Your task to perform on an android device: How much does a 2 bedroom apartment rent for in Miami? Image 0: 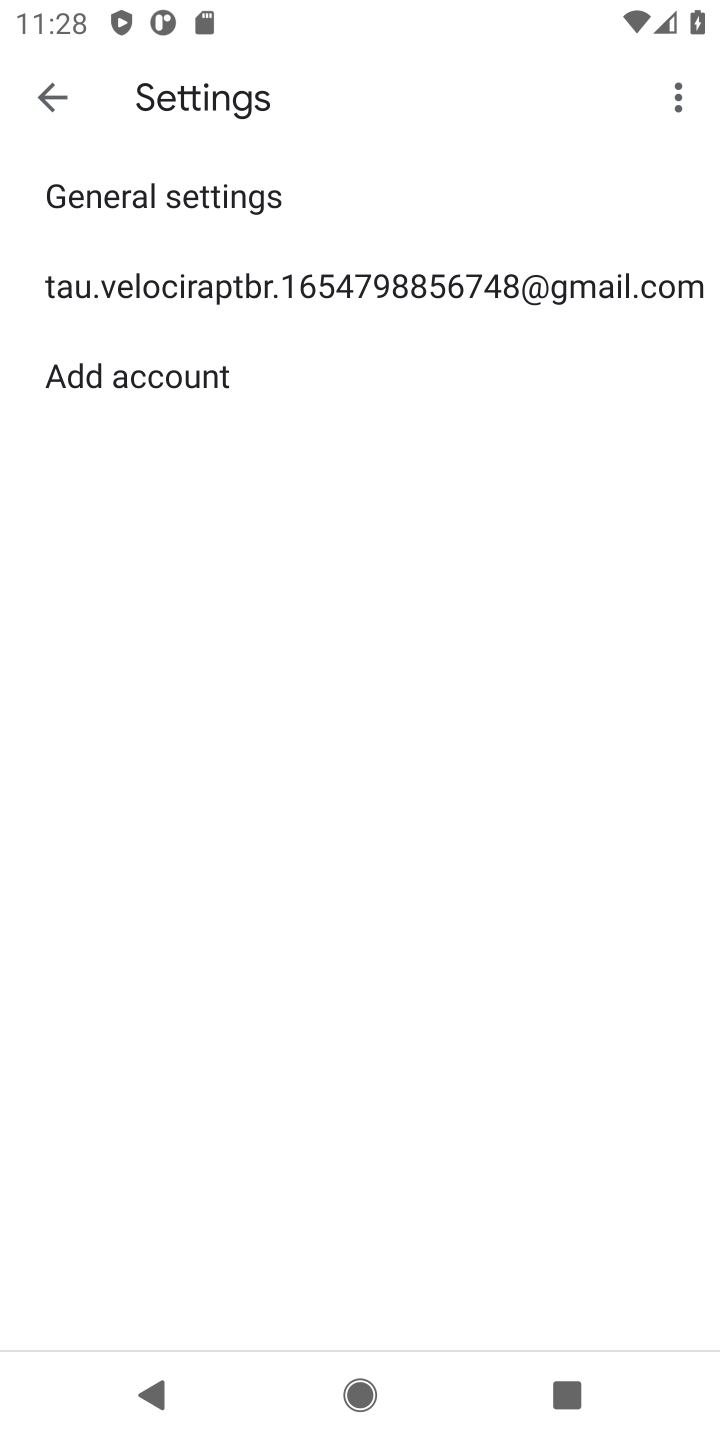
Step 0: press home button
Your task to perform on an android device: How much does a 2 bedroom apartment rent for in Miami? Image 1: 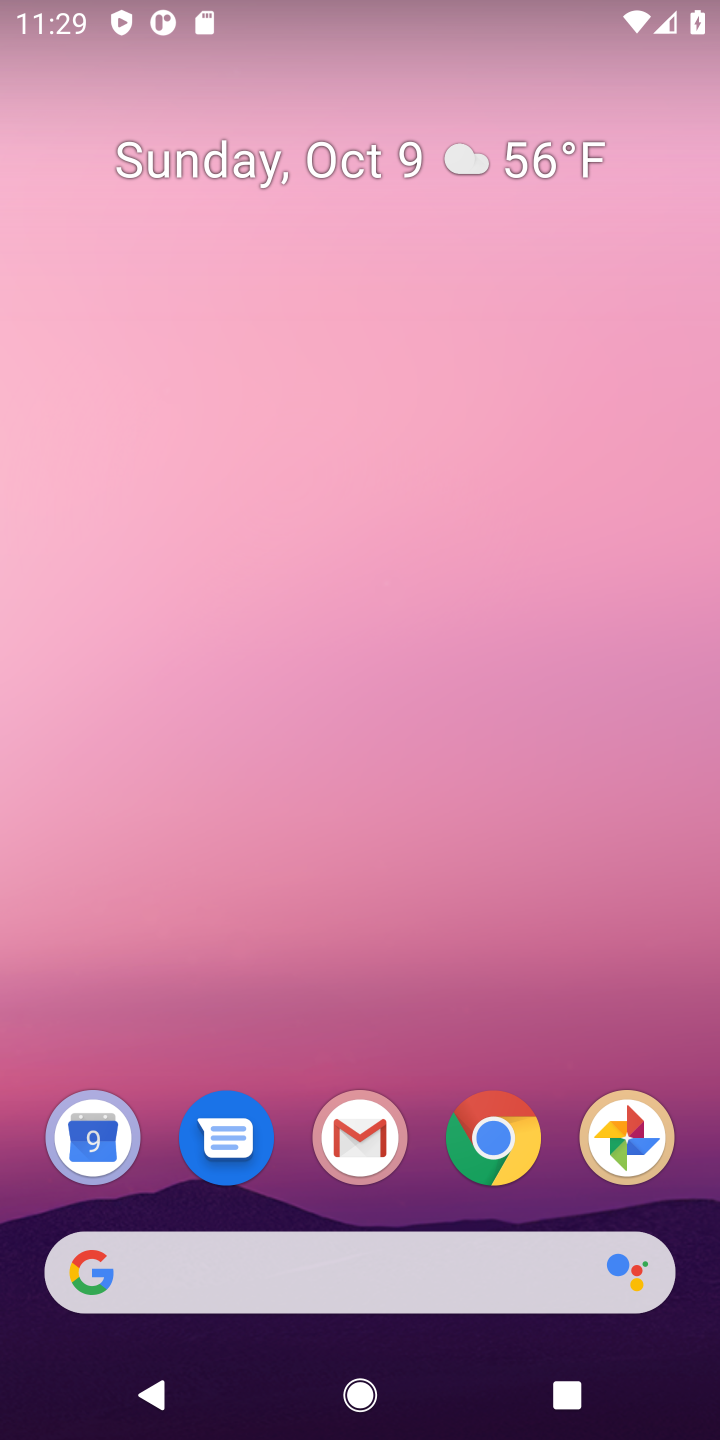
Step 1: click (500, 1156)
Your task to perform on an android device: How much does a 2 bedroom apartment rent for in Miami? Image 2: 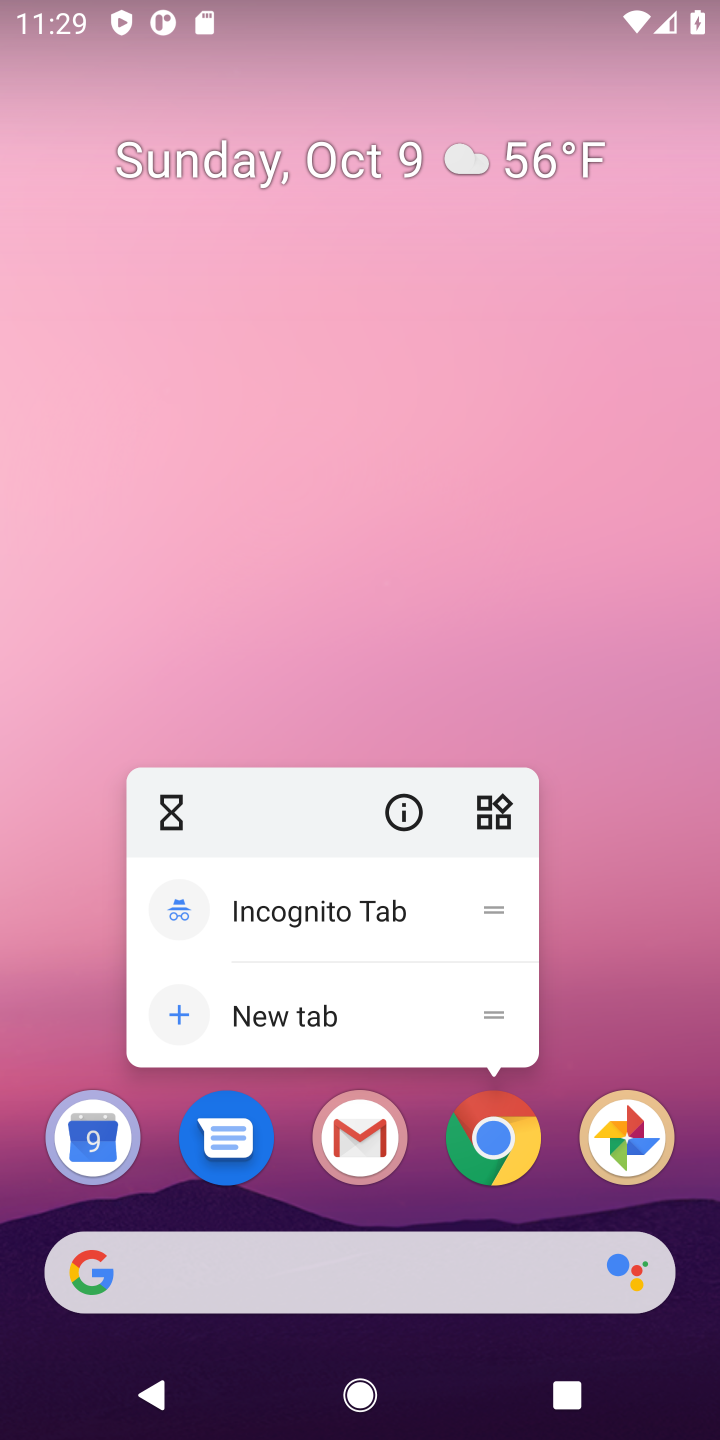
Step 2: click (412, 606)
Your task to perform on an android device: How much does a 2 bedroom apartment rent for in Miami? Image 3: 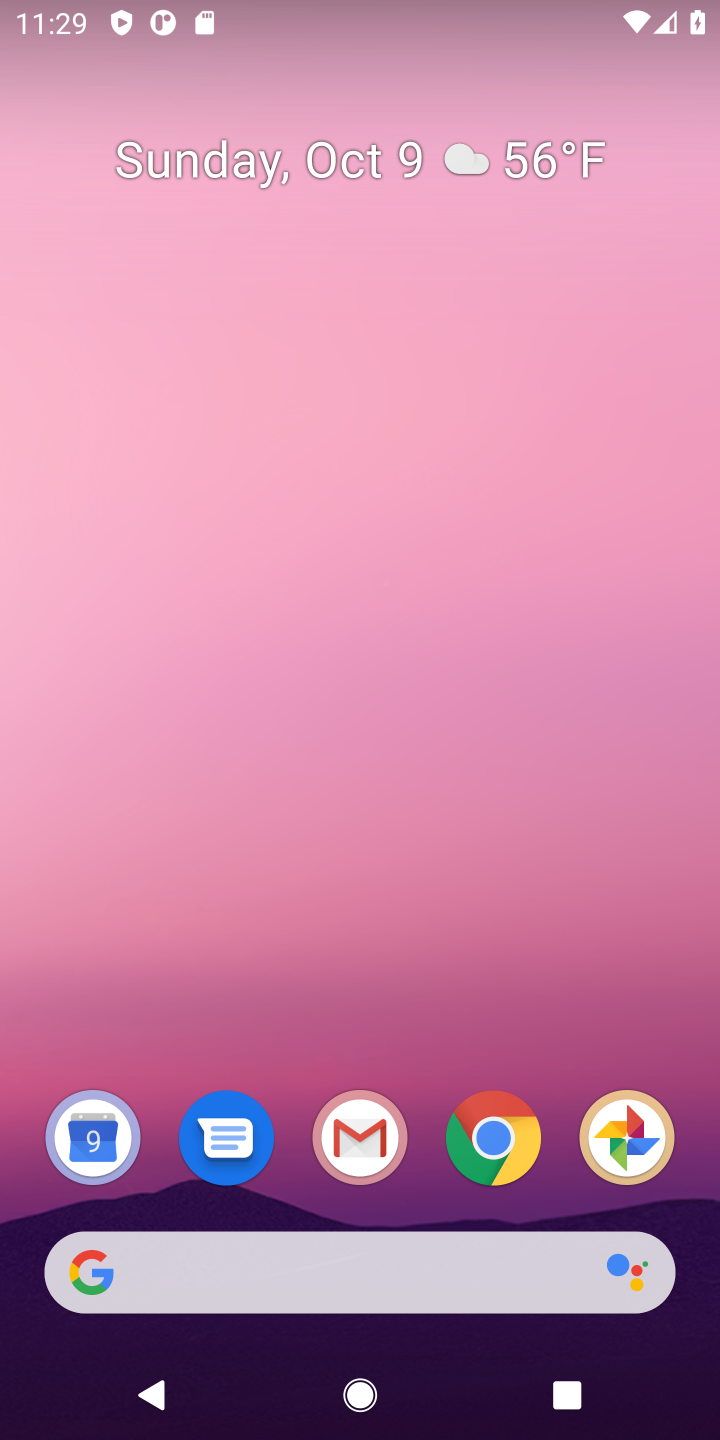
Step 3: click (499, 1123)
Your task to perform on an android device: How much does a 2 bedroom apartment rent for in Miami? Image 4: 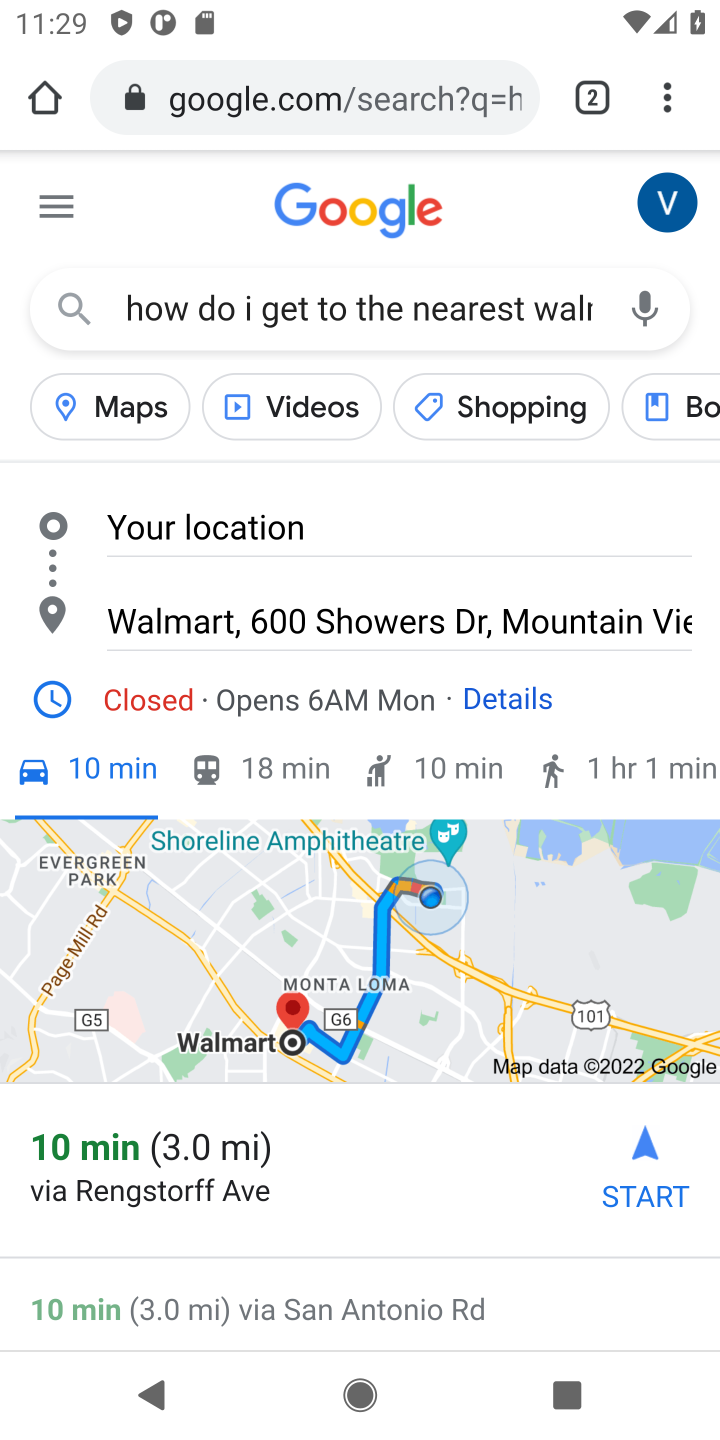
Step 4: click (213, 96)
Your task to perform on an android device: How much does a 2 bedroom apartment rent for in Miami? Image 5: 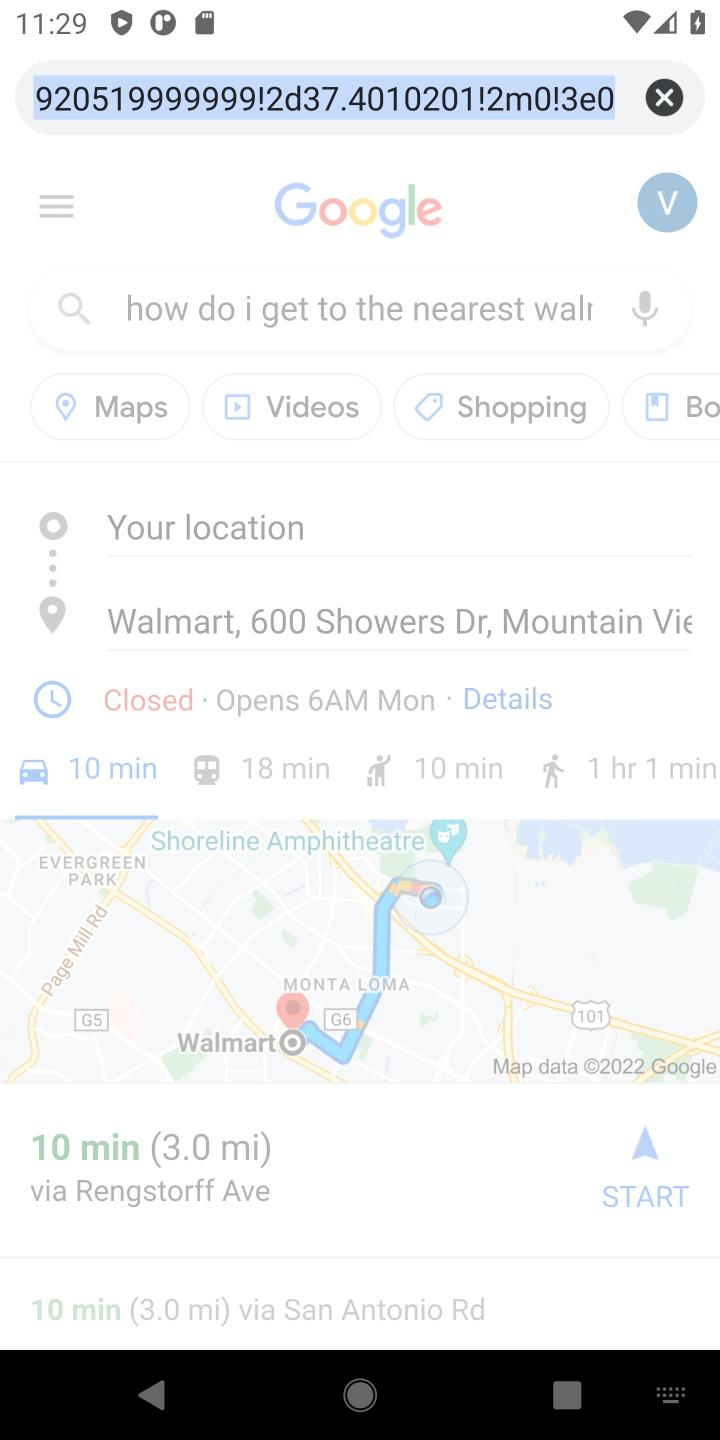
Step 5: click (658, 90)
Your task to perform on an android device: How much does a 2 bedroom apartment rent for in Miami? Image 6: 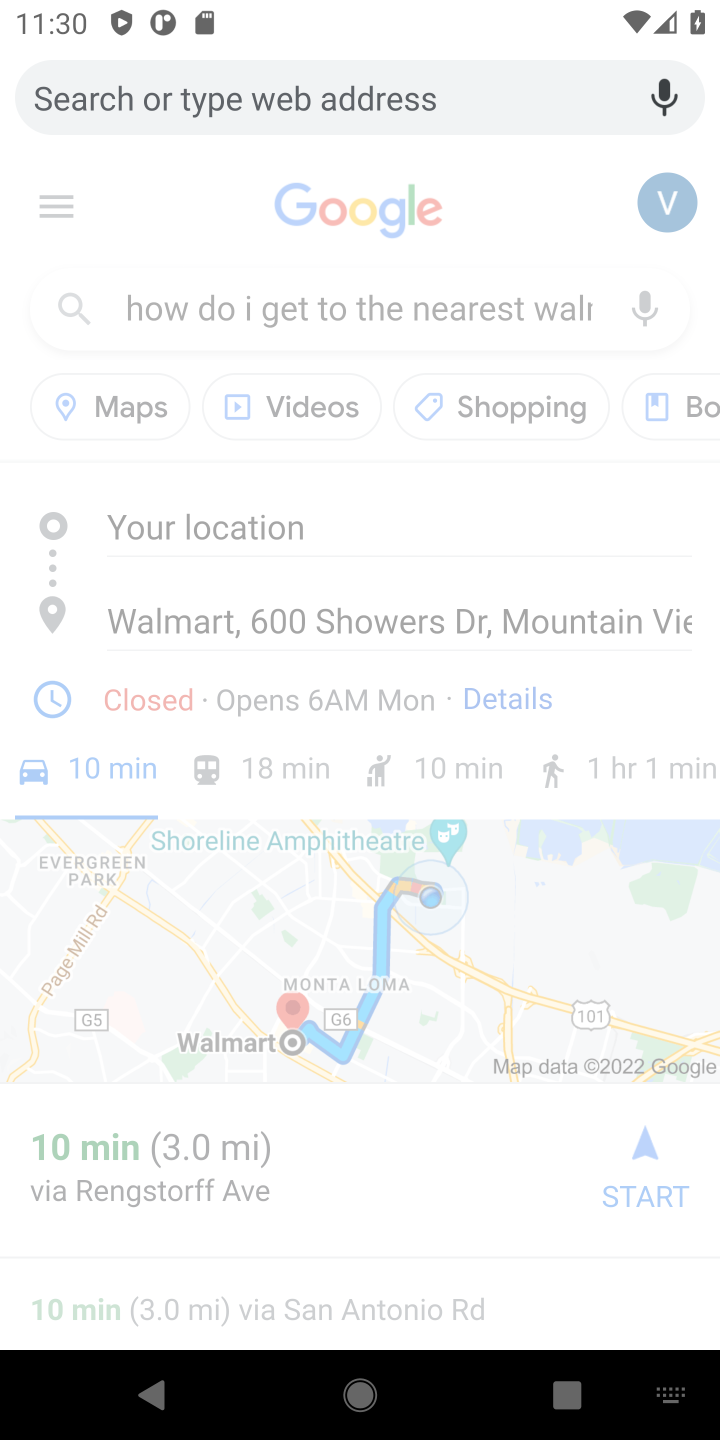
Step 6: type "How much does a 2 bedroom apartment rent for in Miami?"
Your task to perform on an android device: How much does a 2 bedroom apartment rent for in Miami? Image 7: 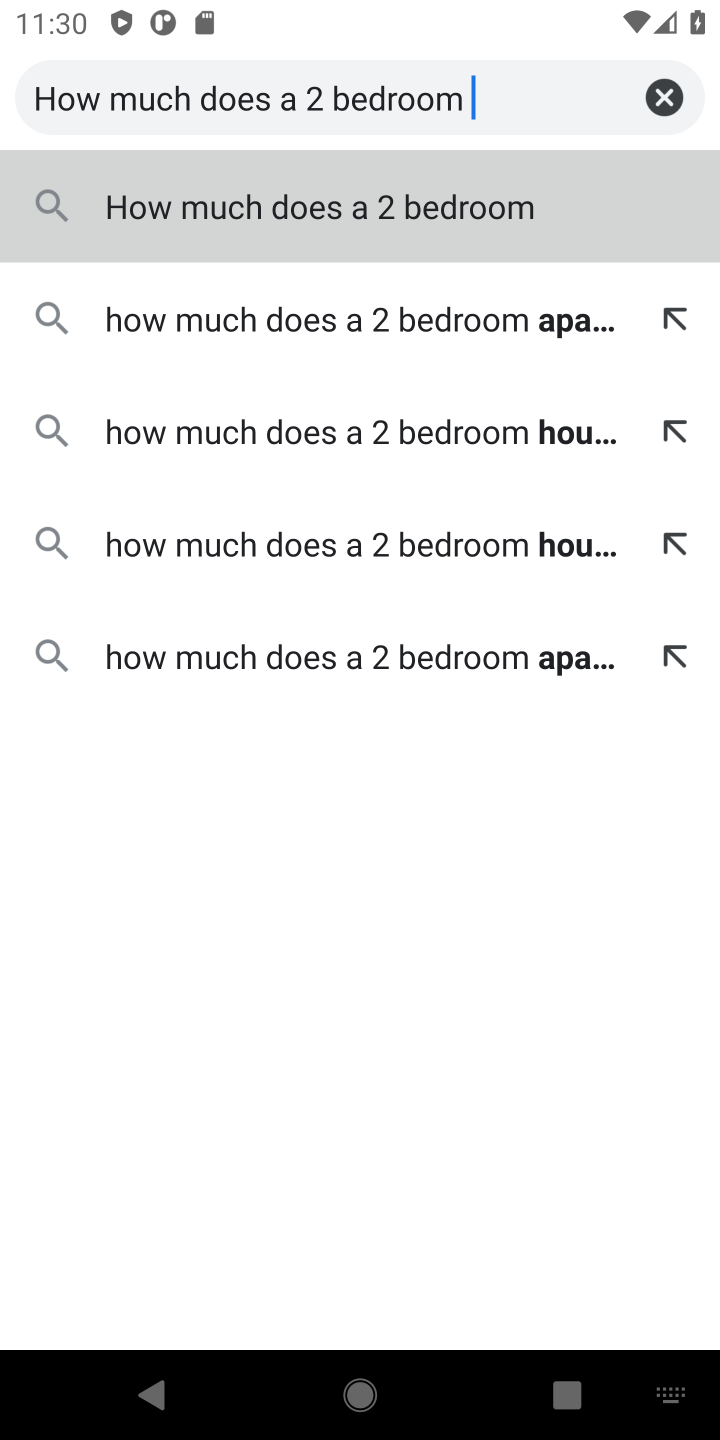
Step 7: click (433, 207)
Your task to perform on an android device: How much does a 2 bedroom apartment rent for in Miami? Image 8: 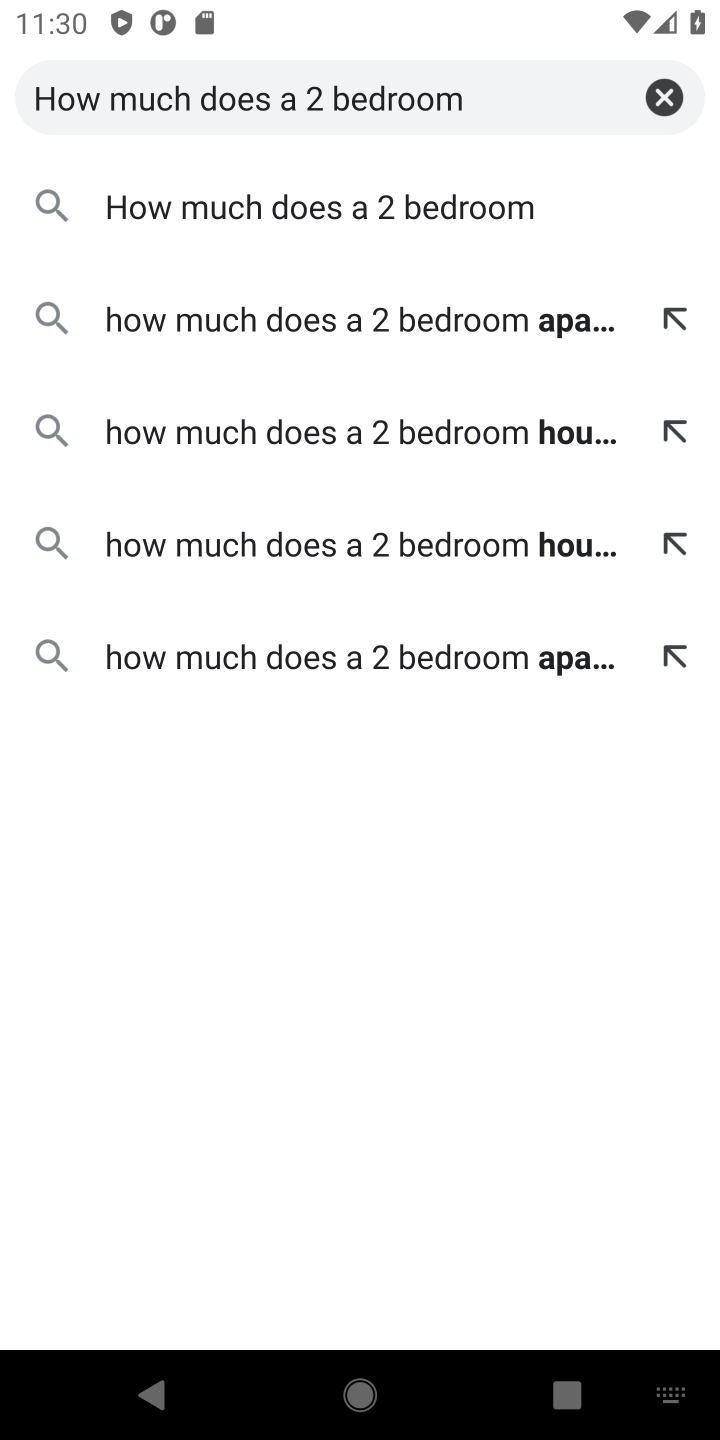
Step 8: click (314, 195)
Your task to perform on an android device: How much does a 2 bedroom apartment rent for in Miami? Image 9: 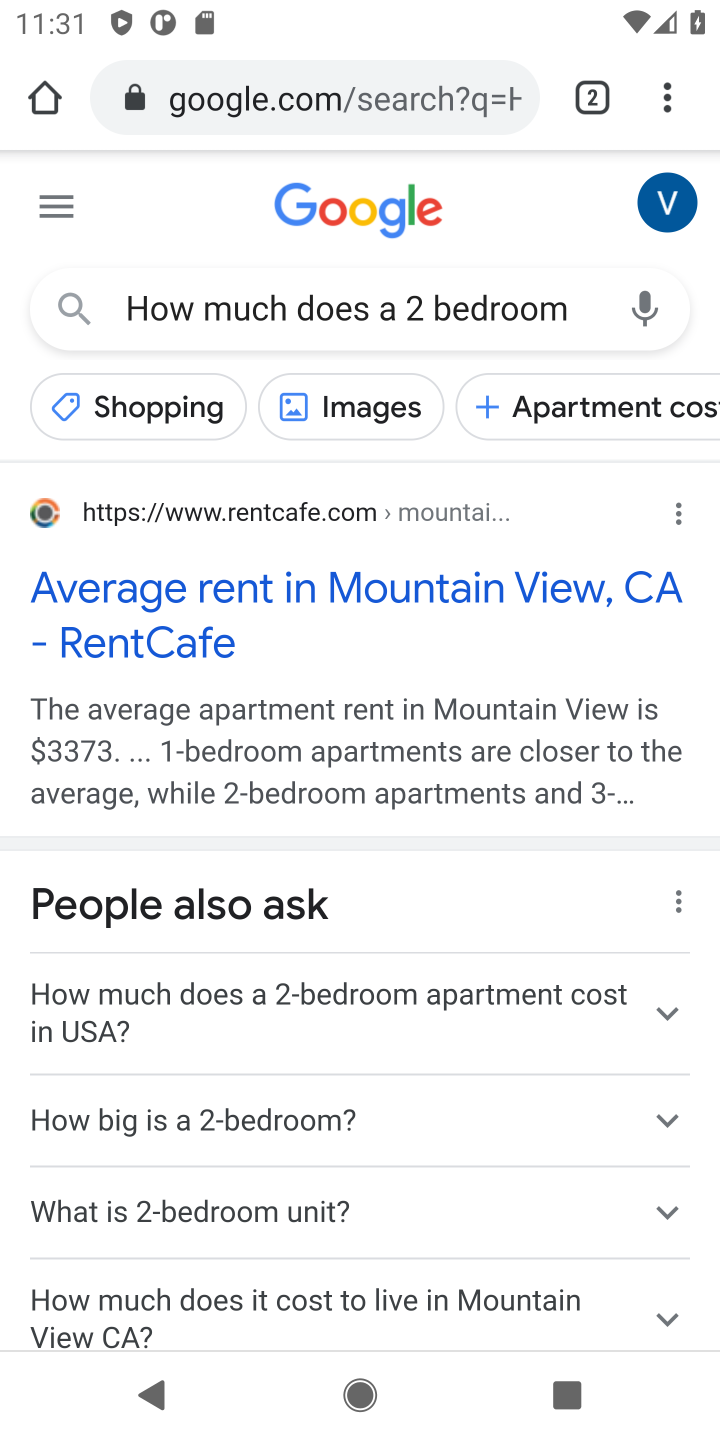
Step 9: task complete